Your task to perform on an android device: open app "Truecaller" (install if not already installed) Image 0: 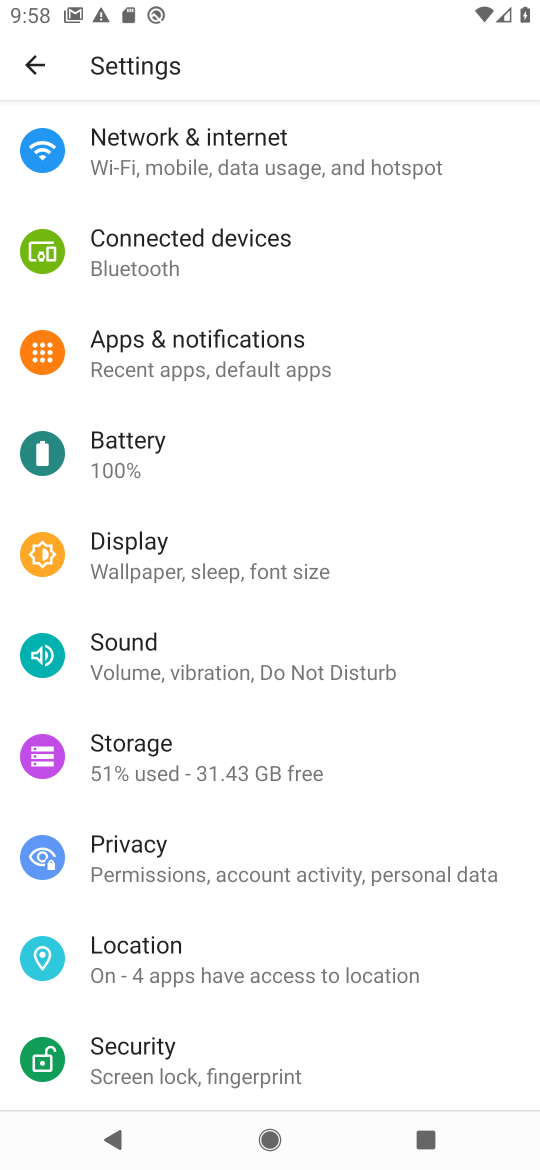
Step 0: press back button
Your task to perform on an android device: open app "Truecaller" (install if not already installed) Image 1: 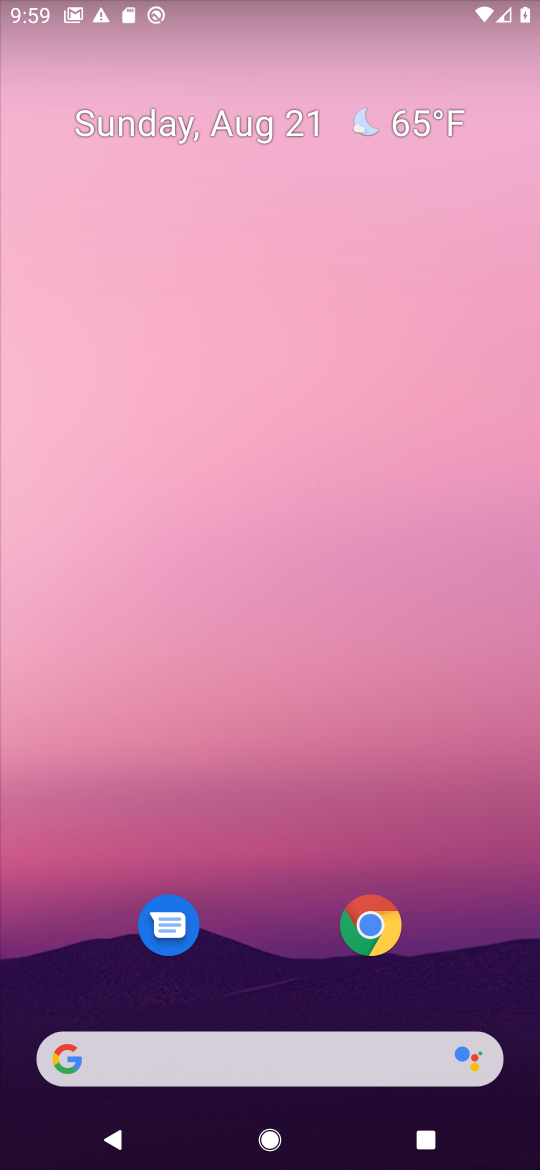
Step 1: drag from (277, 988) to (329, 91)
Your task to perform on an android device: open app "Truecaller" (install if not already installed) Image 2: 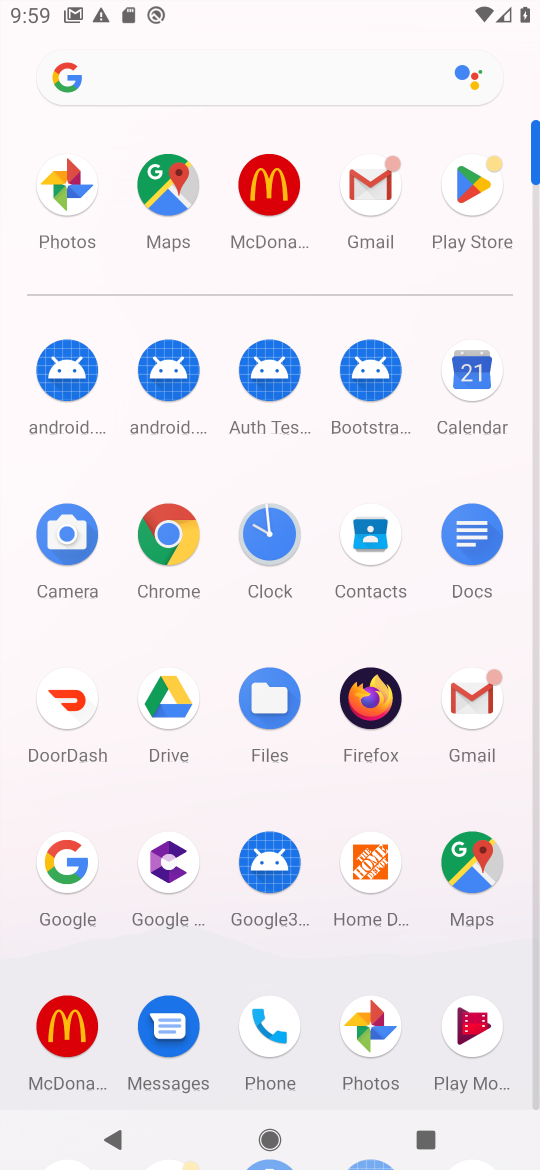
Step 2: click (489, 181)
Your task to perform on an android device: open app "Truecaller" (install if not already installed) Image 3: 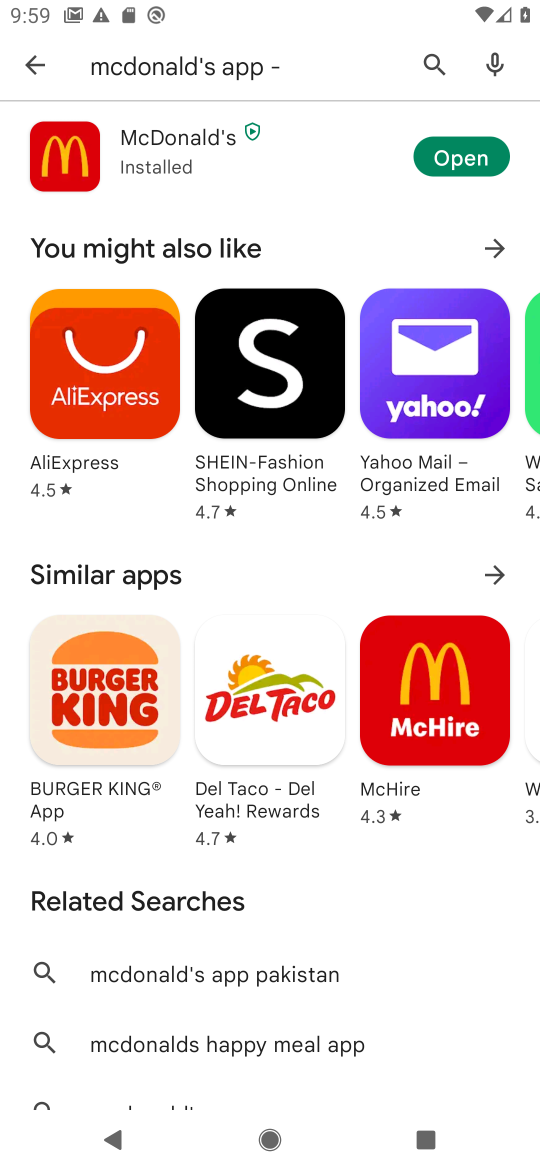
Step 3: click (451, 49)
Your task to perform on an android device: open app "Truecaller" (install if not already installed) Image 4: 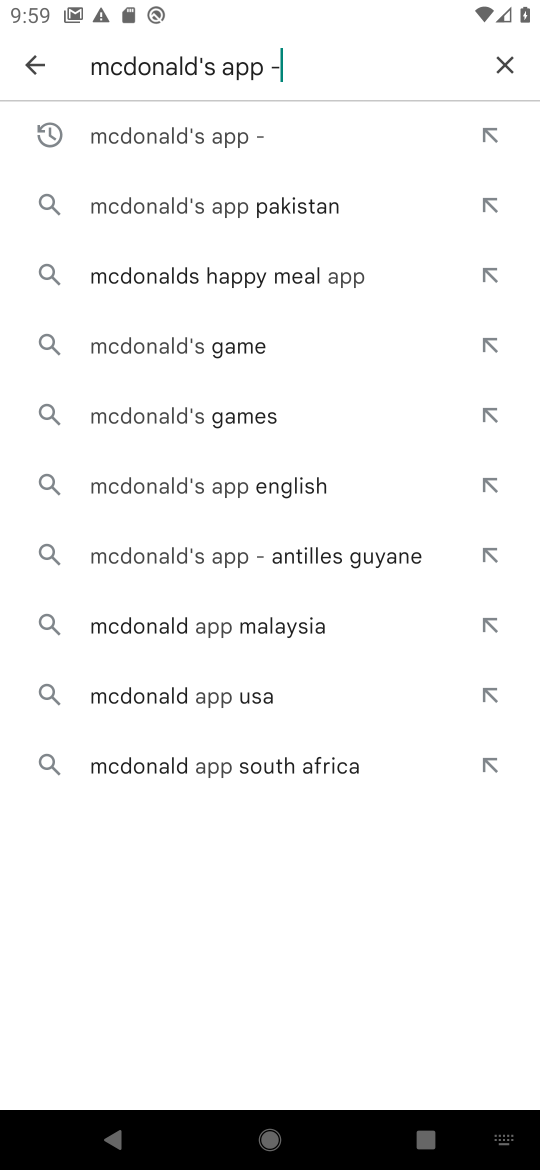
Step 4: click (503, 58)
Your task to perform on an android device: open app "Truecaller" (install if not already installed) Image 5: 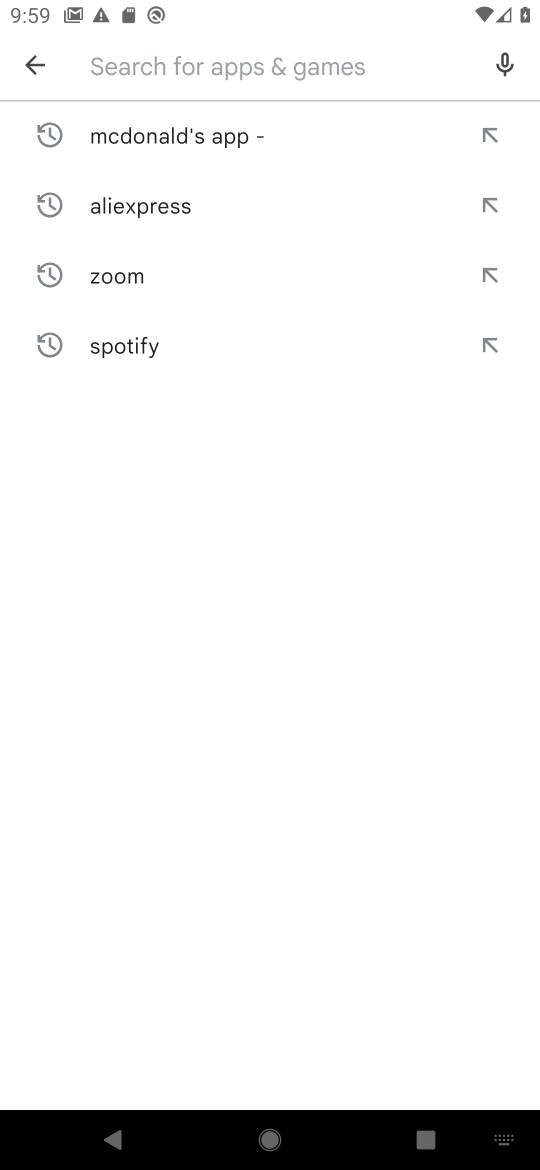
Step 5: click (238, 59)
Your task to perform on an android device: open app "Truecaller" (install if not already installed) Image 6: 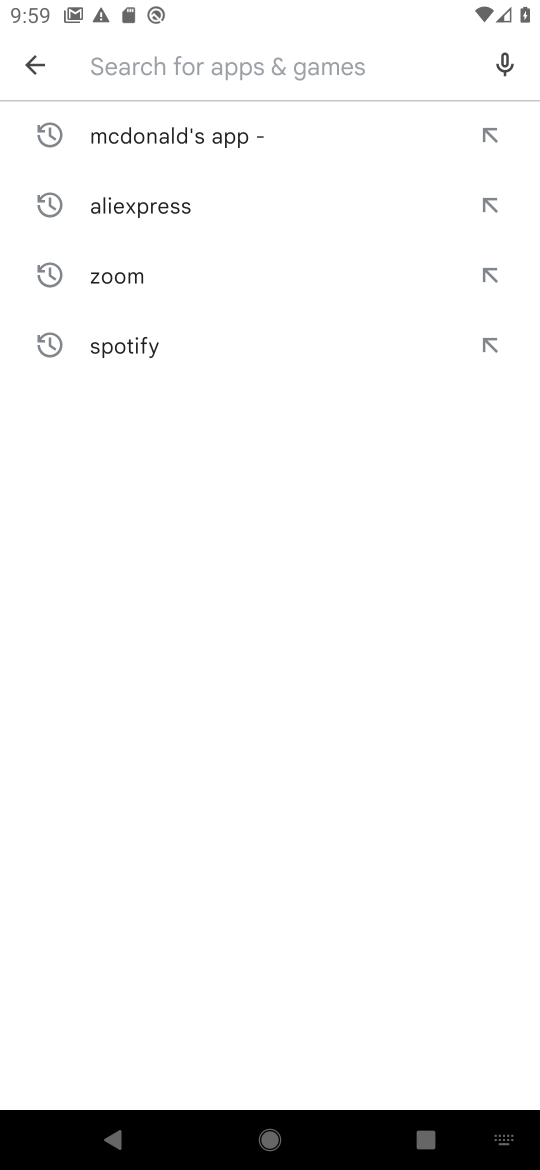
Step 6: type "truecaller"
Your task to perform on an android device: open app "Truecaller" (install if not already installed) Image 7: 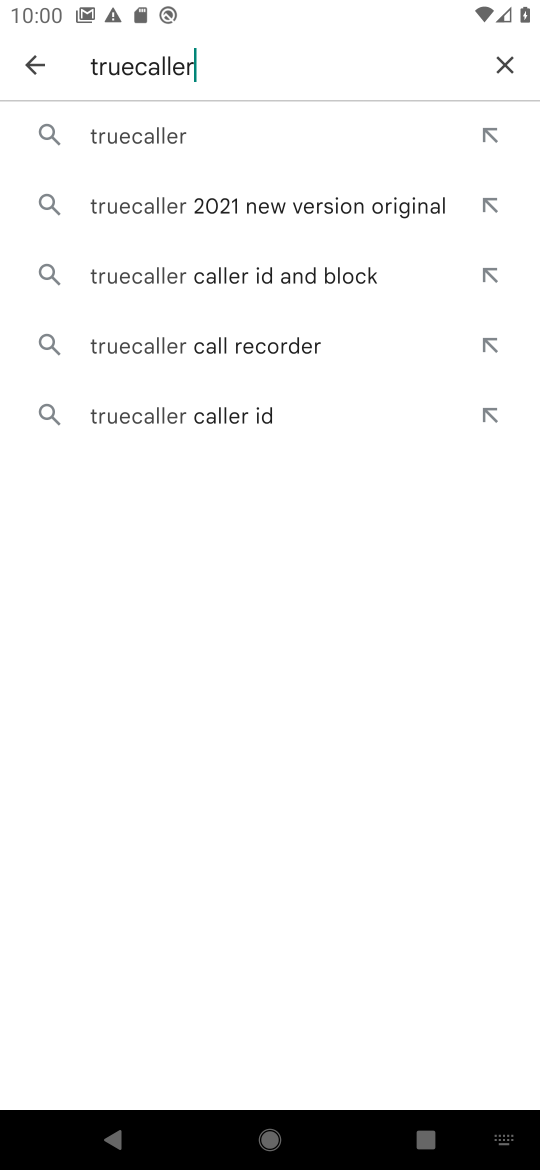
Step 7: click (190, 155)
Your task to perform on an android device: open app "Truecaller" (install if not already installed) Image 8: 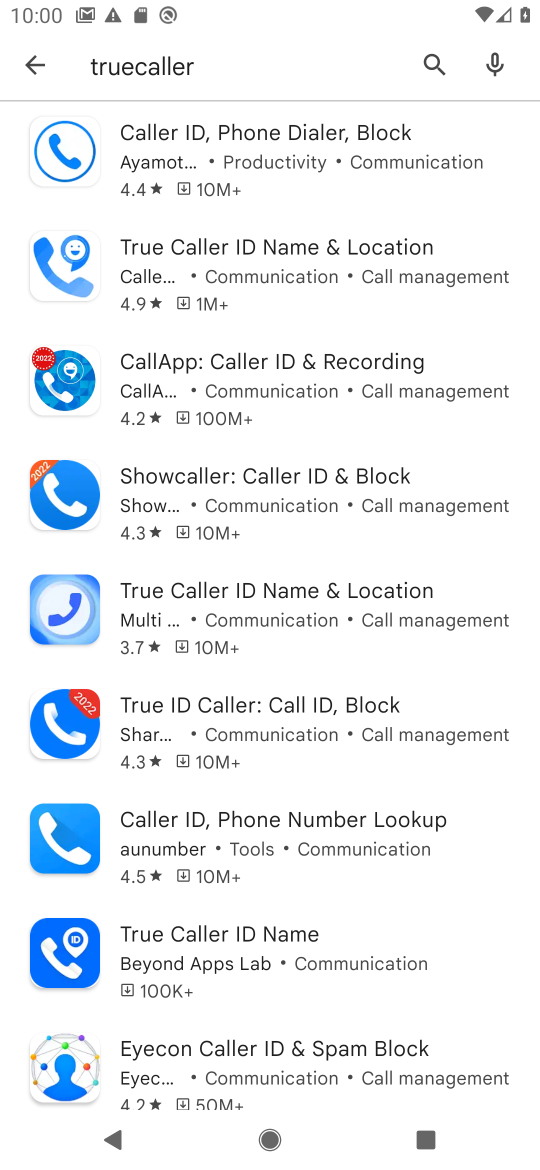
Step 8: task complete